Your task to perform on an android device: allow notifications from all sites in the chrome app Image 0: 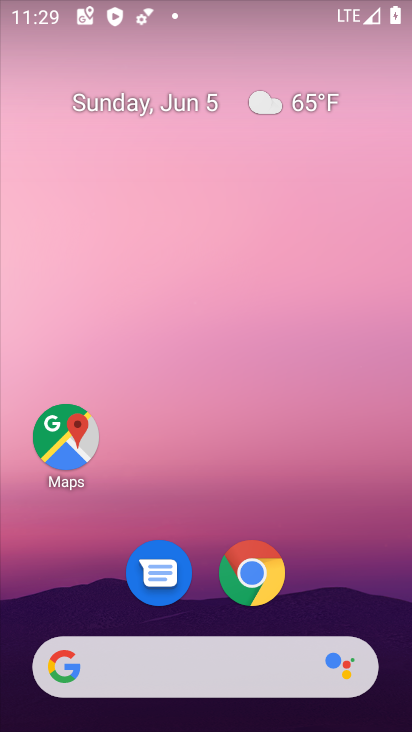
Step 0: drag from (229, 470) to (256, 132)
Your task to perform on an android device: allow notifications from all sites in the chrome app Image 1: 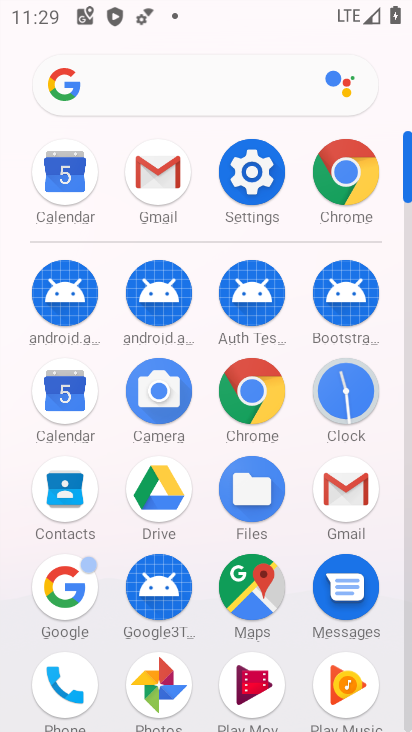
Step 1: click (240, 393)
Your task to perform on an android device: allow notifications from all sites in the chrome app Image 2: 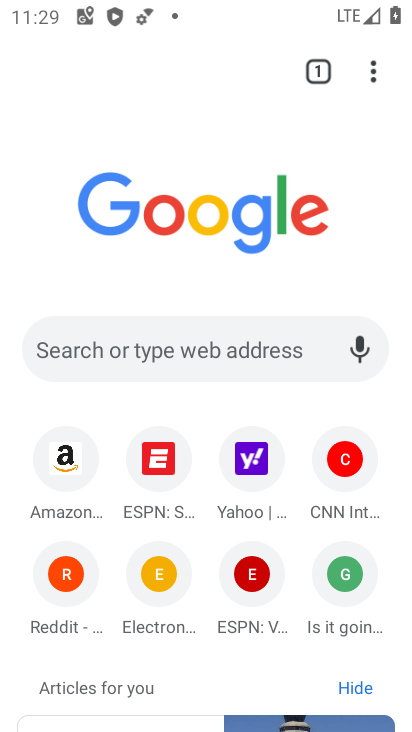
Step 2: click (360, 75)
Your task to perform on an android device: allow notifications from all sites in the chrome app Image 3: 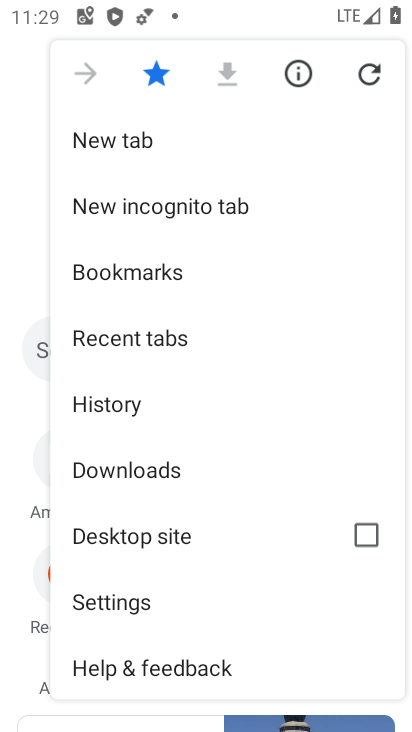
Step 3: drag from (197, 487) to (230, 188)
Your task to perform on an android device: allow notifications from all sites in the chrome app Image 4: 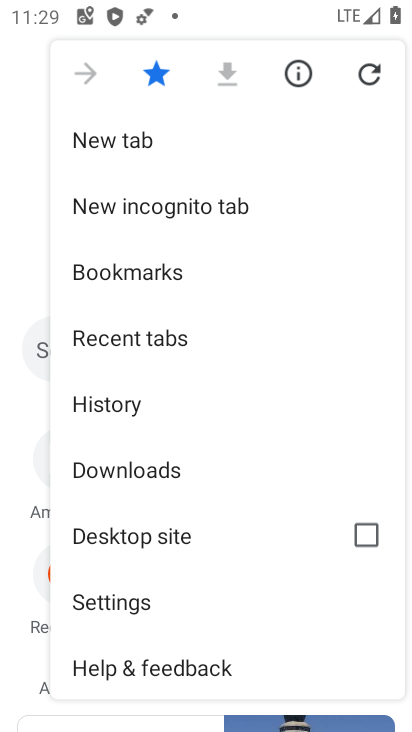
Step 4: click (170, 601)
Your task to perform on an android device: allow notifications from all sites in the chrome app Image 5: 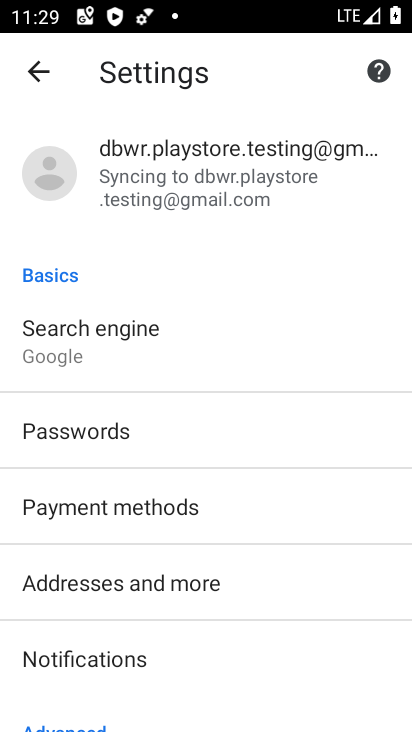
Step 5: drag from (126, 572) to (217, 185)
Your task to perform on an android device: allow notifications from all sites in the chrome app Image 6: 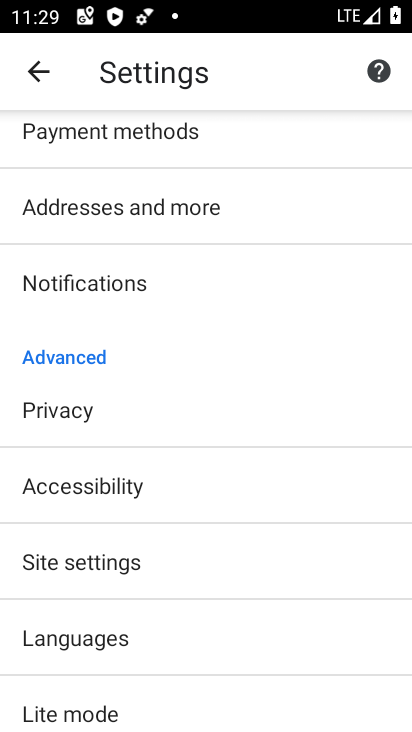
Step 6: click (129, 566)
Your task to perform on an android device: allow notifications from all sites in the chrome app Image 7: 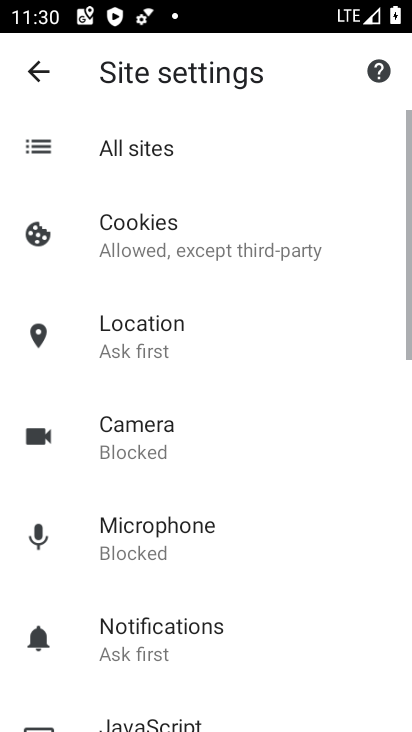
Step 7: click (211, 158)
Your task to perform on an android device: allow notifications from all sites in the chrome app Image 8: 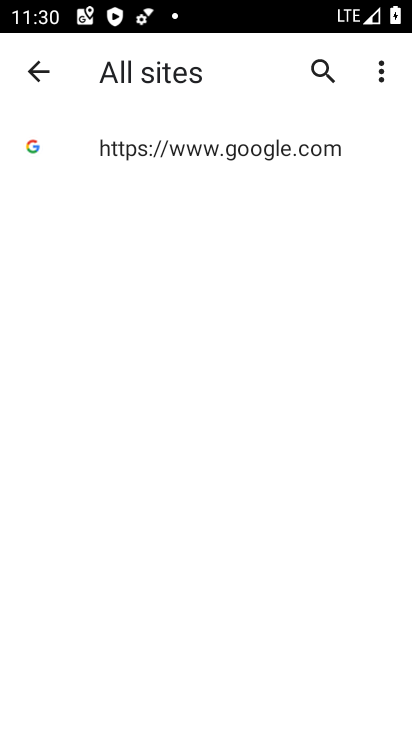
Step 8: click (229, 149)
Your task to perform on an android device: allow notifications from all sites in the chrome app Image 9: 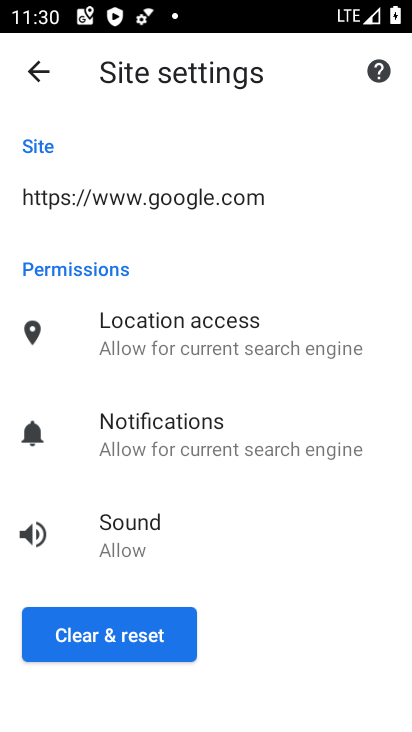
Step 9: task complete